Your task to perform on an android device: turn off notifications in google photos Image 0: 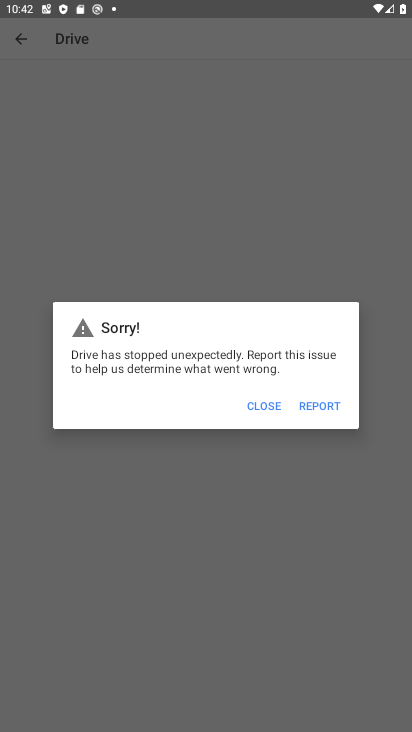
Step 0: press home button
Your task to perform on an android device: turn off notifications in google photos Image 1: 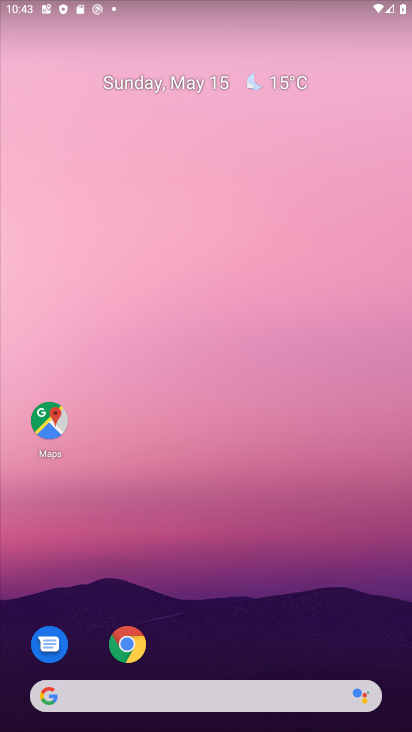
Step 1: drag from (189, 536) to (223, 194)
Your task to perform on an android device: turn off notifications in google photos Image 2: 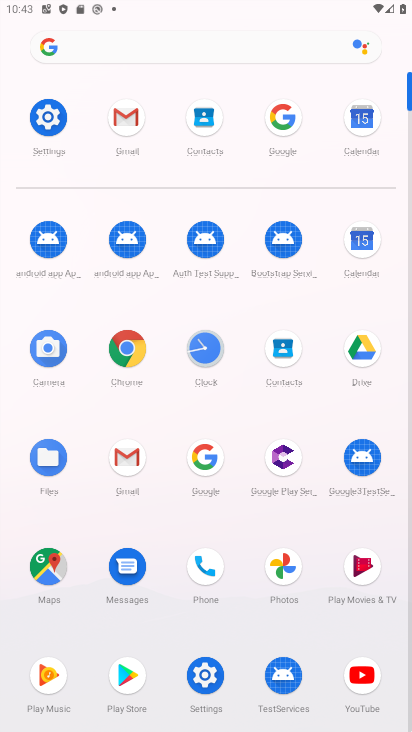
Step 2: click (291, 568)
Your task to perform on an android device: turn off notifications in google photos Image 3: 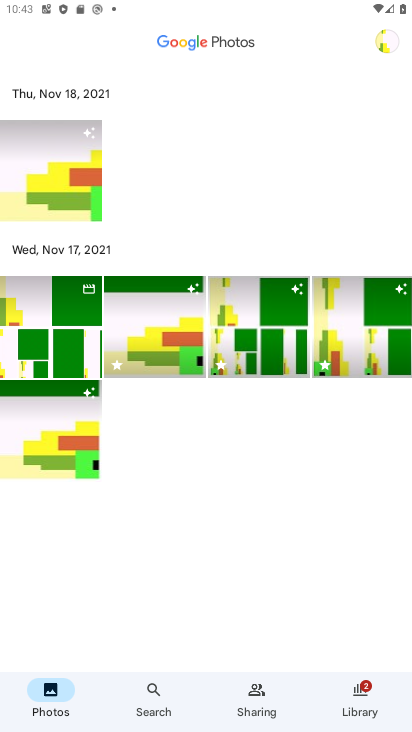
Step 3: click (370, 40)
Your task to perform on an android device: turn off notifications in google photos Image 4: 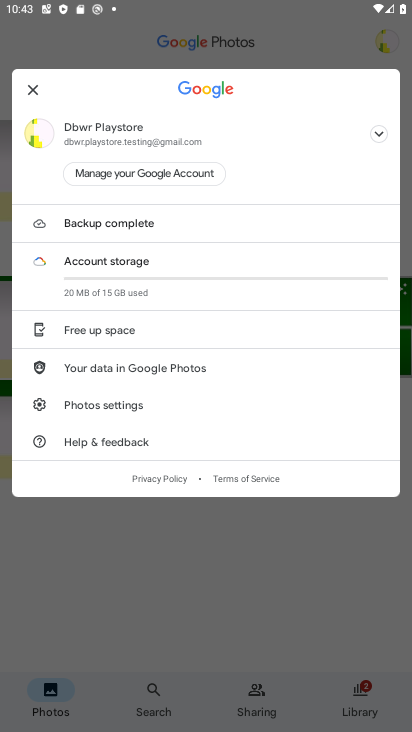
Step 4: click (122, 402)
Your task to perform on an android device: turn off notifications in google photos Image 5: 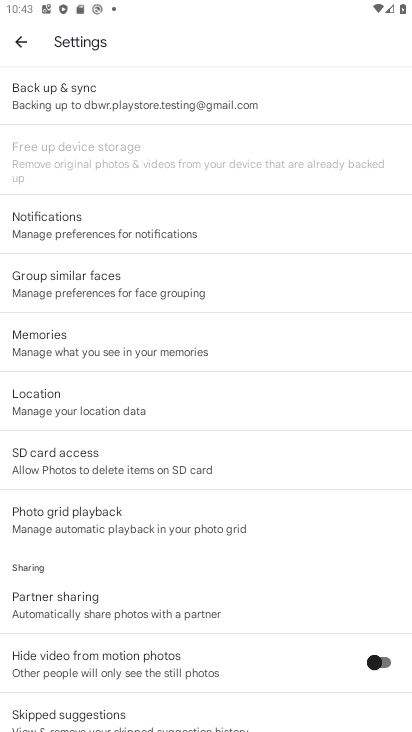
Step 5: click (45, 221)
Your task to perform on an android device: turn off notifications in google photos Image 6: 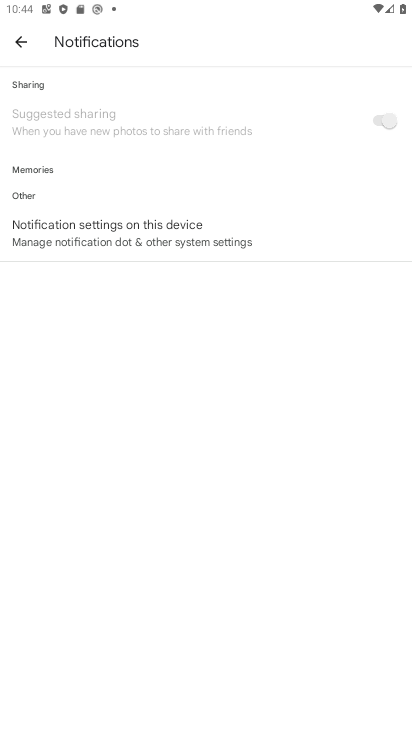
Step 6: task complete